Your task to perform on an android device: Open Google Maps Image 0: 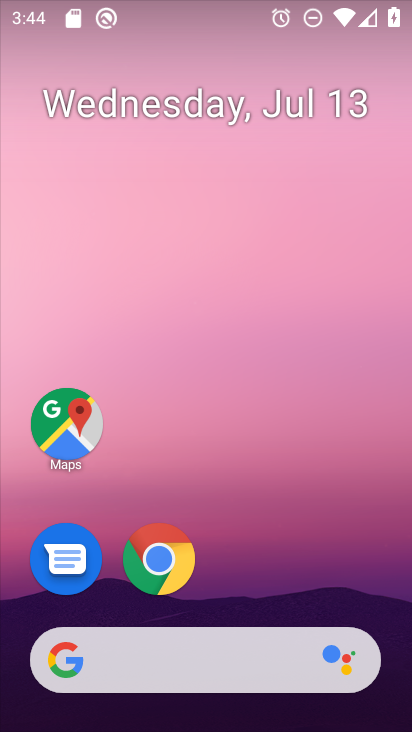
Step 0: drag from (355, 554) to (357, 211)
Your task to perform on an android device: Open Google Maps Image 1: 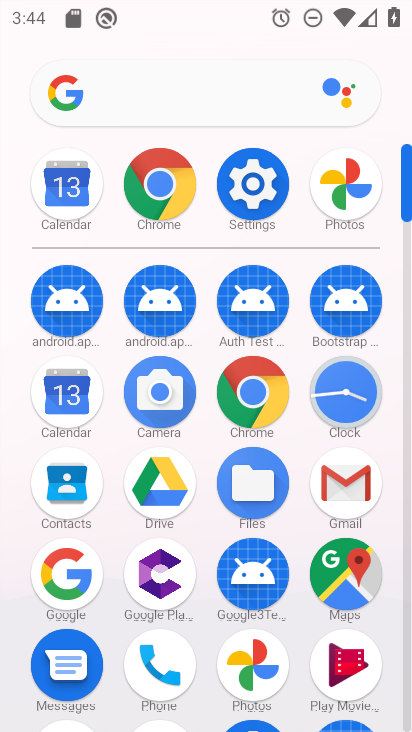
Step 1: click (354, 561)
Your task to perform on an android device: Open Google Maps Image 2: 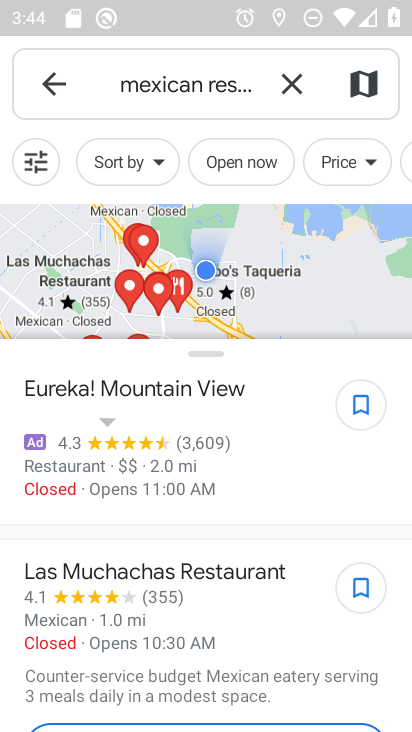
Step 2: task complete